Your task to perform on an android device: turn on showing notifications on the lock screen Image 0: 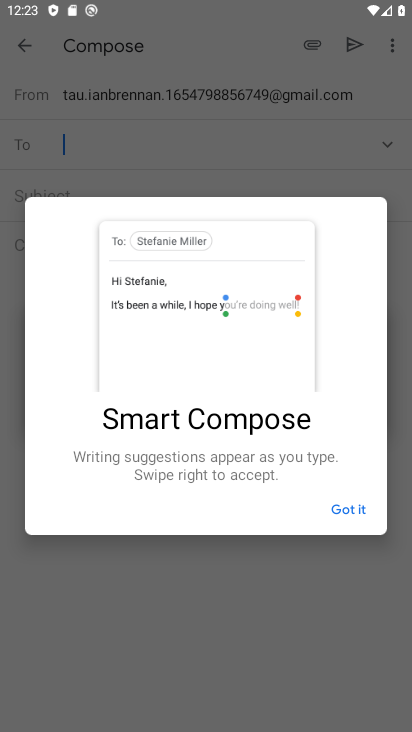
Step 0: press home button
Your task to perform on an android device: turn on showing notifications on the lock screen Image 1: 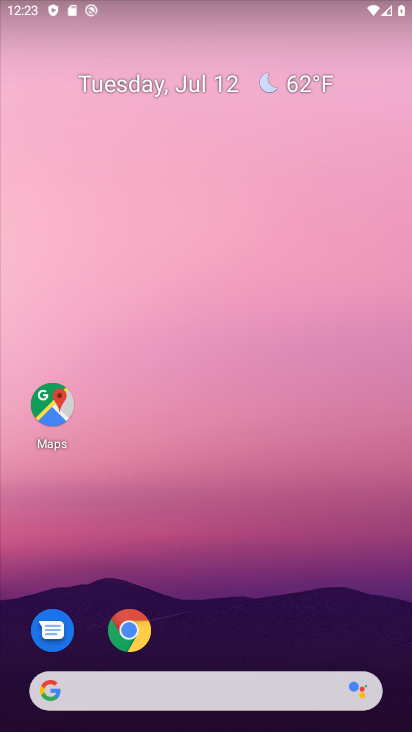
Step 1: drag from (235, 558) to (225, 97)
Your task to perform on an android device: turn on showing notifications on the lock screen Image 2: 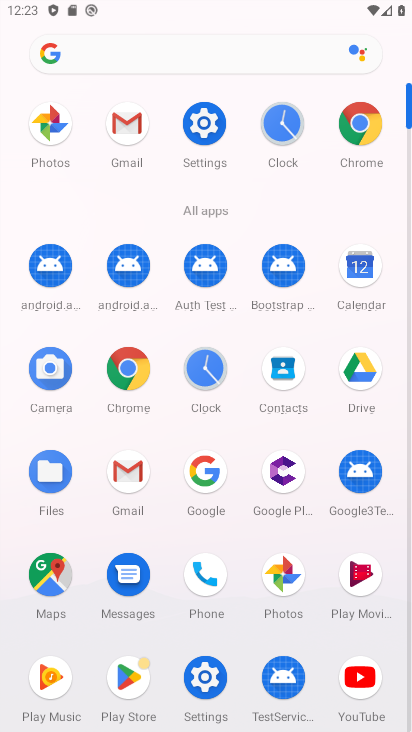
Step 2: click (201, 120)
Your task to perform on an android device: turn on showing notifications on the lock screen Image 3: 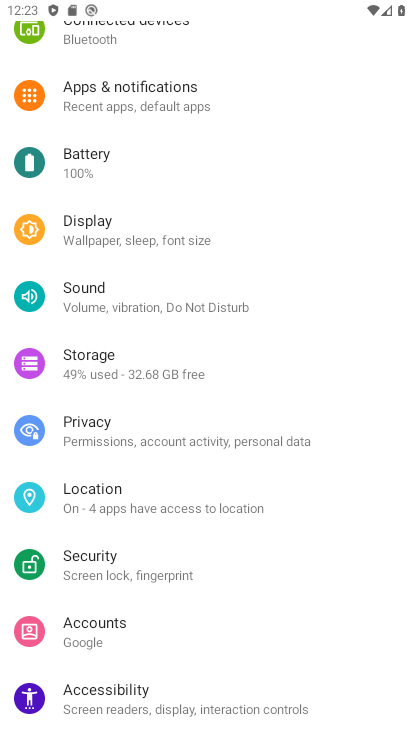
Step 3: click (146, 89)
Your task to perform on an android device: turn on showing notifications on the lock screen Image 4: 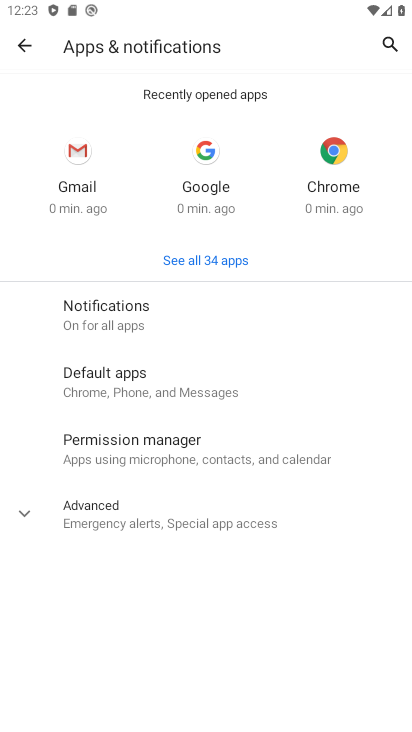
Step 4: click (96, 304)
Your task to perform on an android device: turn on showing notifications on the lock screen Image 5: 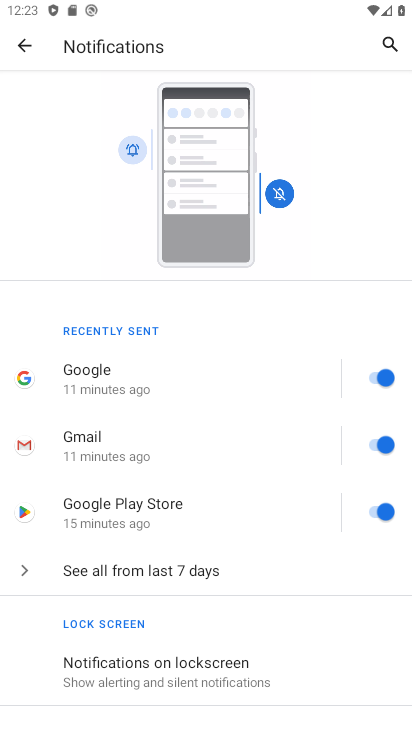
Step 5: click (179, 669)
Your task to perform on an android device: turn on showing notifications on the lock screen Image 6: 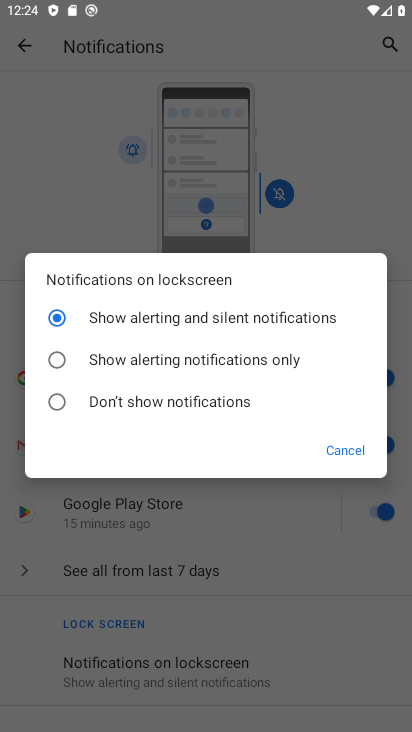
Step 6: task complete